Your task to perform on an android device: check data usage Image 0: 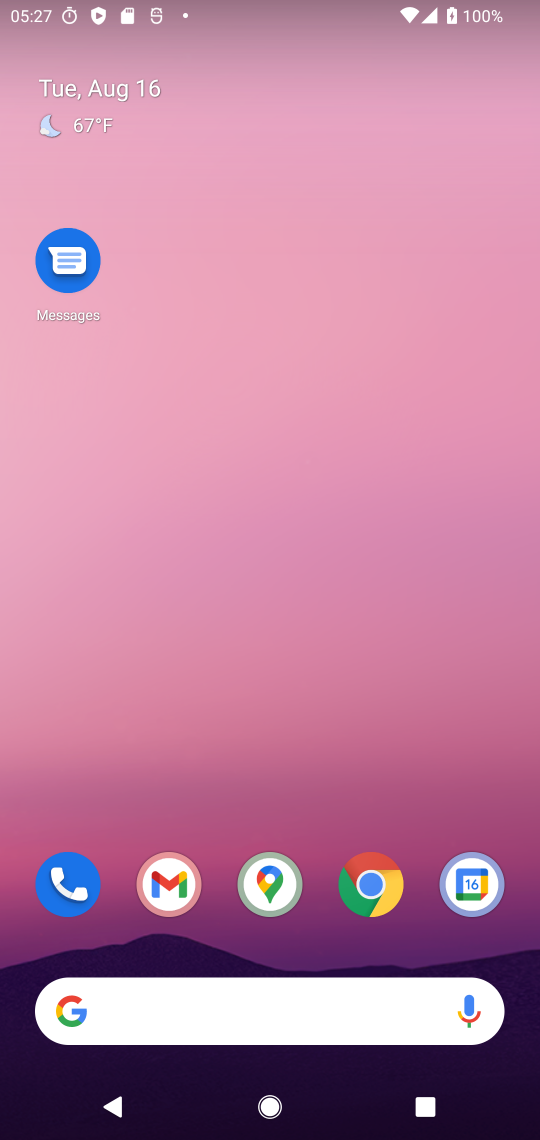
Step 0: drag from (60, 1088) to (300, 132)
Your task to perform on an android device: check data usage Image 1: 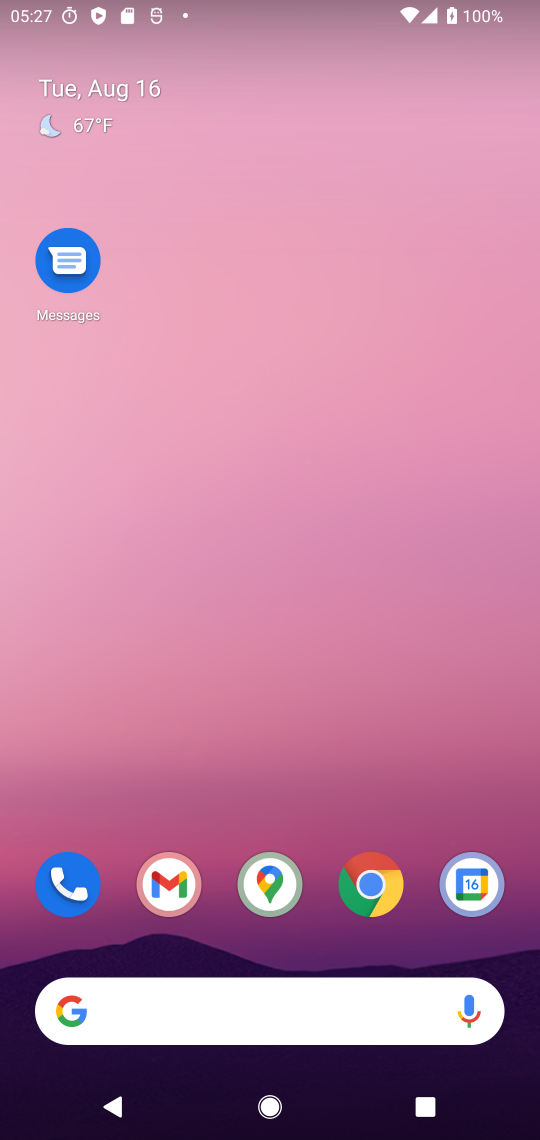
Step 1: drag from (55, 1115) to (334, 373)
Your task to perform on an android device: check data usage Image 2: 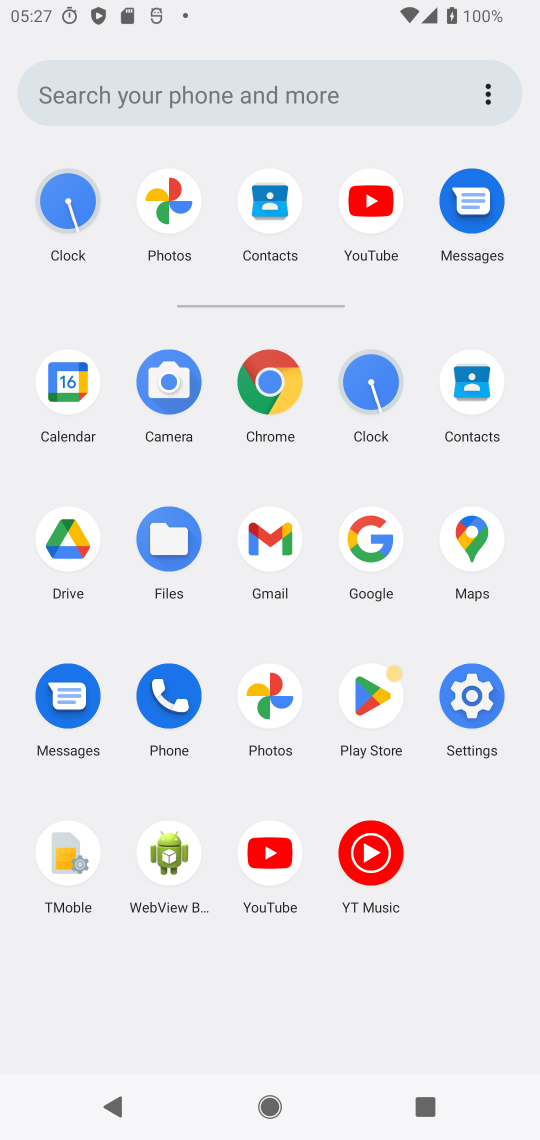
Step 2: click (468, 674)
Your task to perform on an android device: check data usage Image 3: 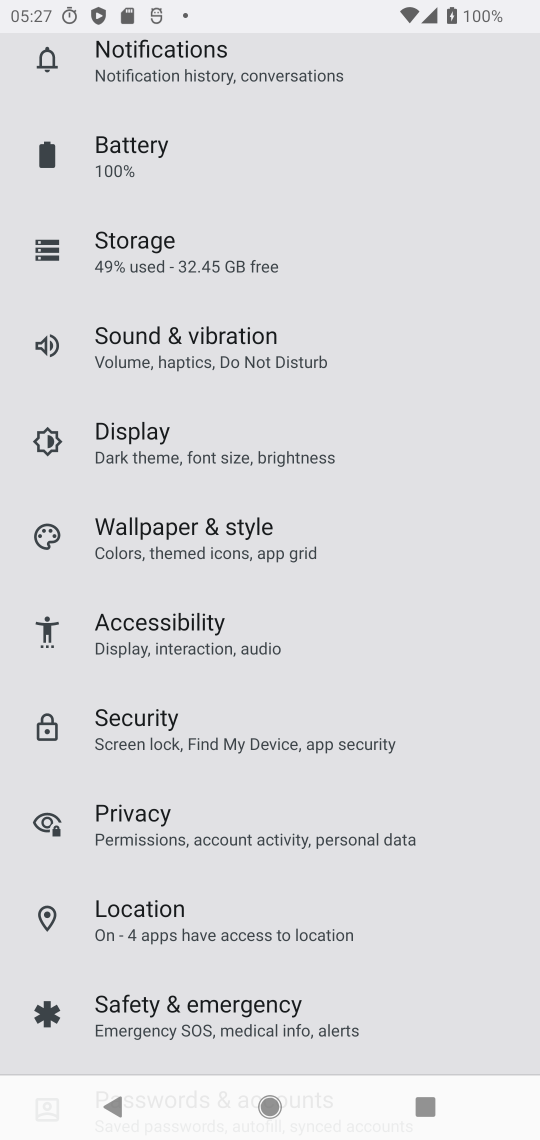
Step 3: drag from (435, 53) to (412, 723)
Your task to perform on an android device: check data usage Image 4: 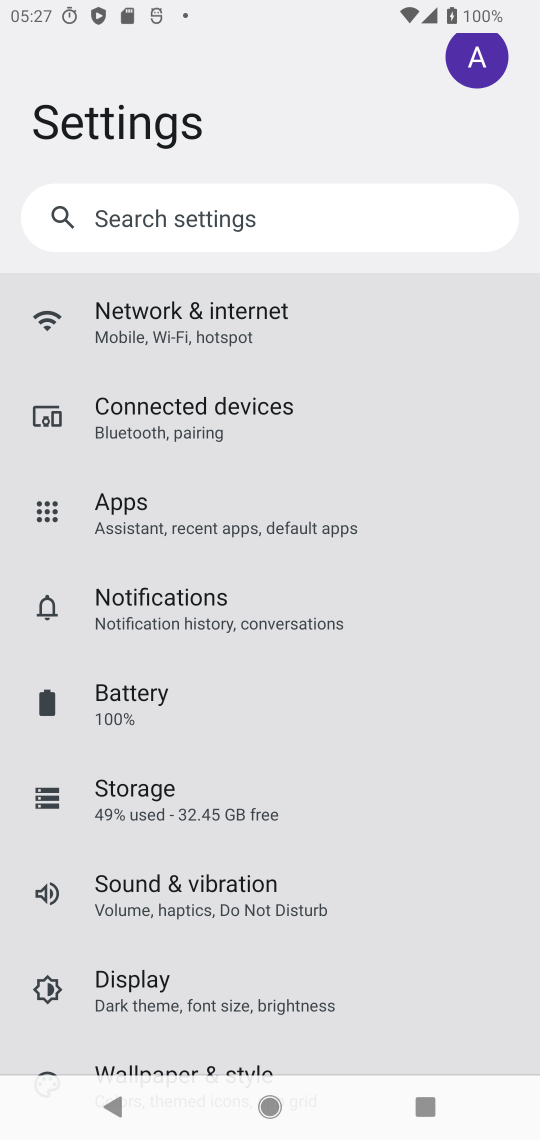
Step 4: click (221, 309)
Your task to perform on an android device: check data usage Image 5: 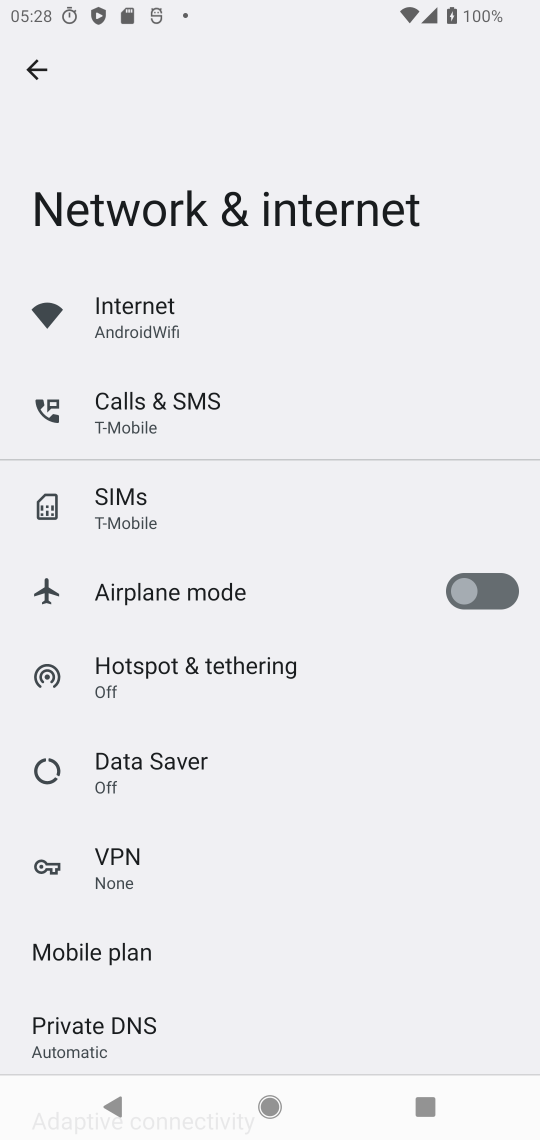
Step 5: drag from (304, 928) to (389, 62)
Your task to perform on an android device: check data usage Image 6: 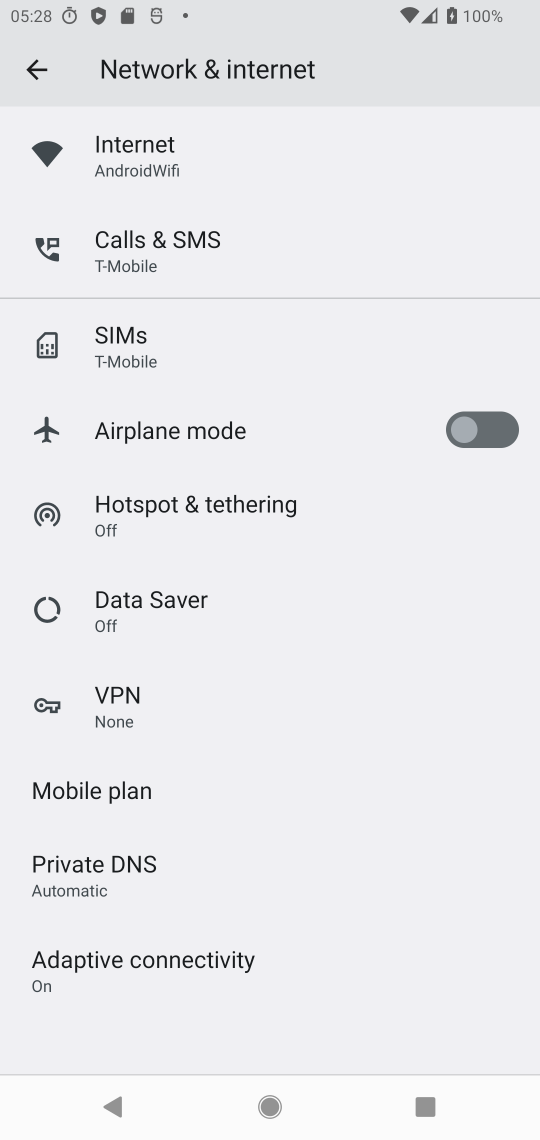
Step 6: click (159, 152)
Your task to perform on an android device: check data usage Image 7: 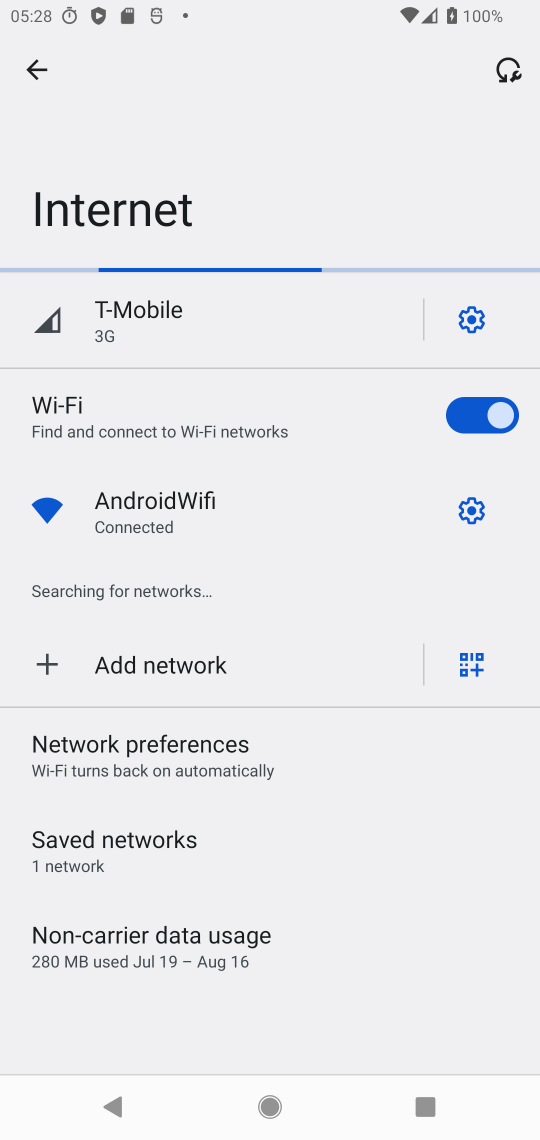
Step 7: click (143, 941)
Your task to perform on an android device: check data usage Image 8: 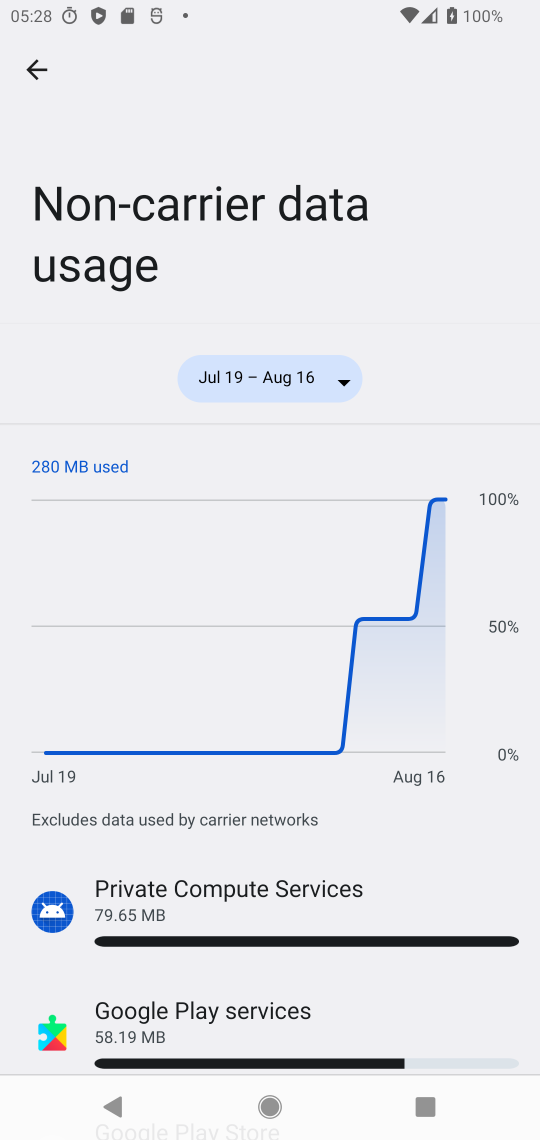
Step 8: task complete